Your task to perform on an android device: open app "Microsoft Excel" Image 0: 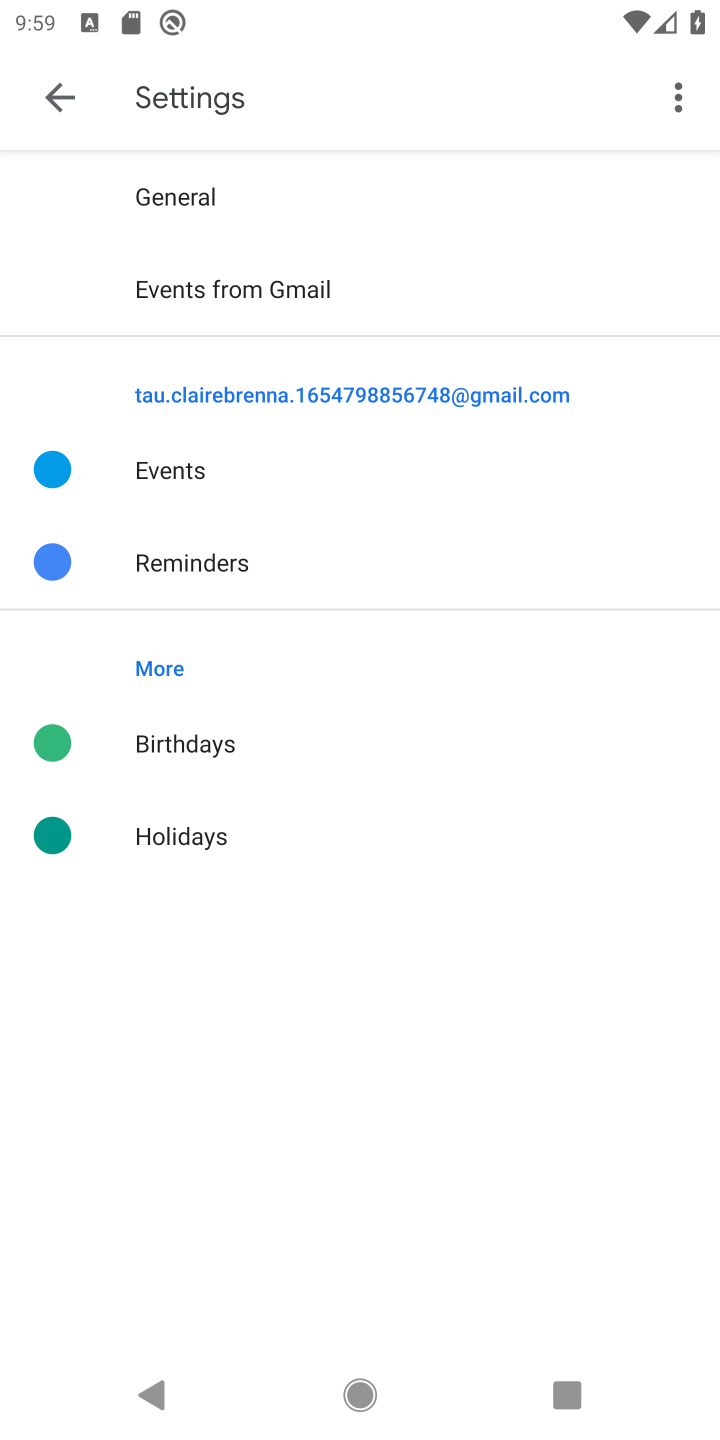
Step 0: press home button
Your task to perform on an android device: open app "Microsoft Excel" Image 1: 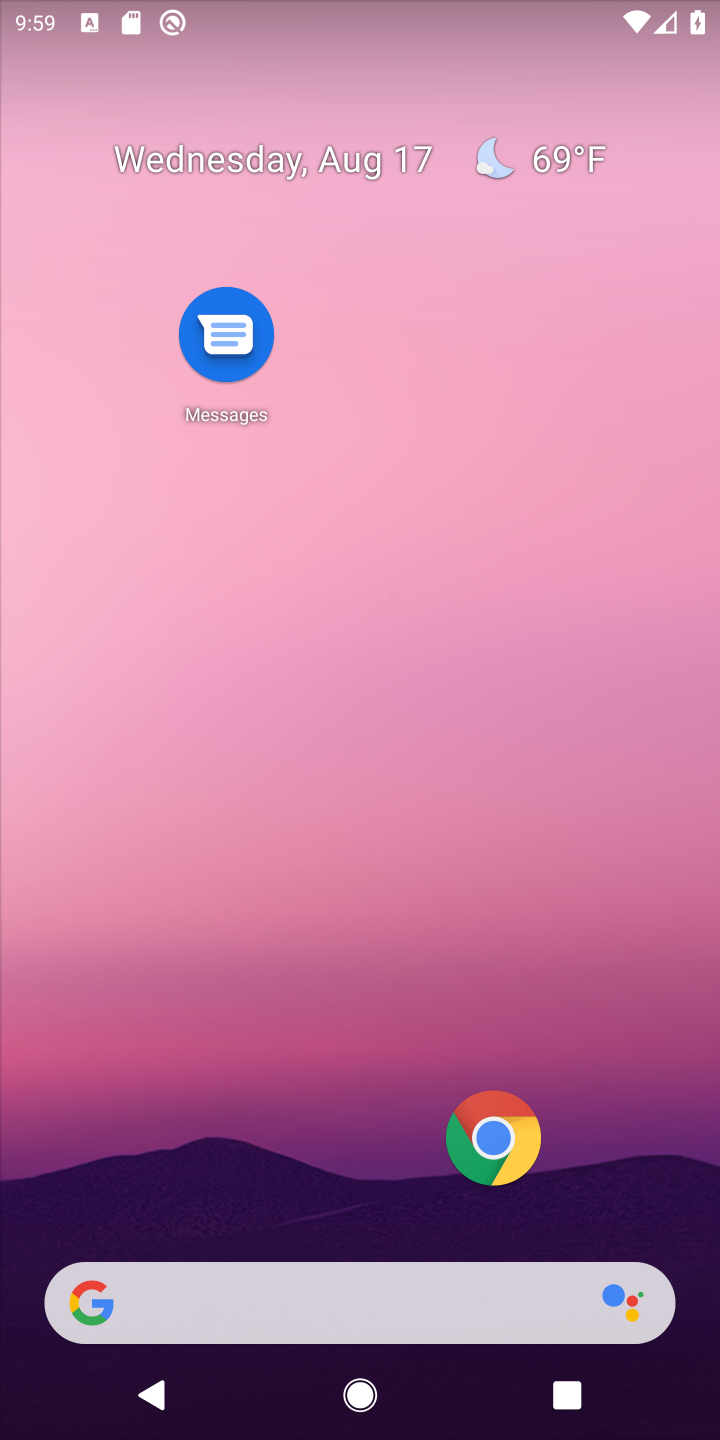
Step 1: drag from (132, 1285) to (246, 603)
Your task to perform on an android device: open app "Microsoft Excel" Image 2: 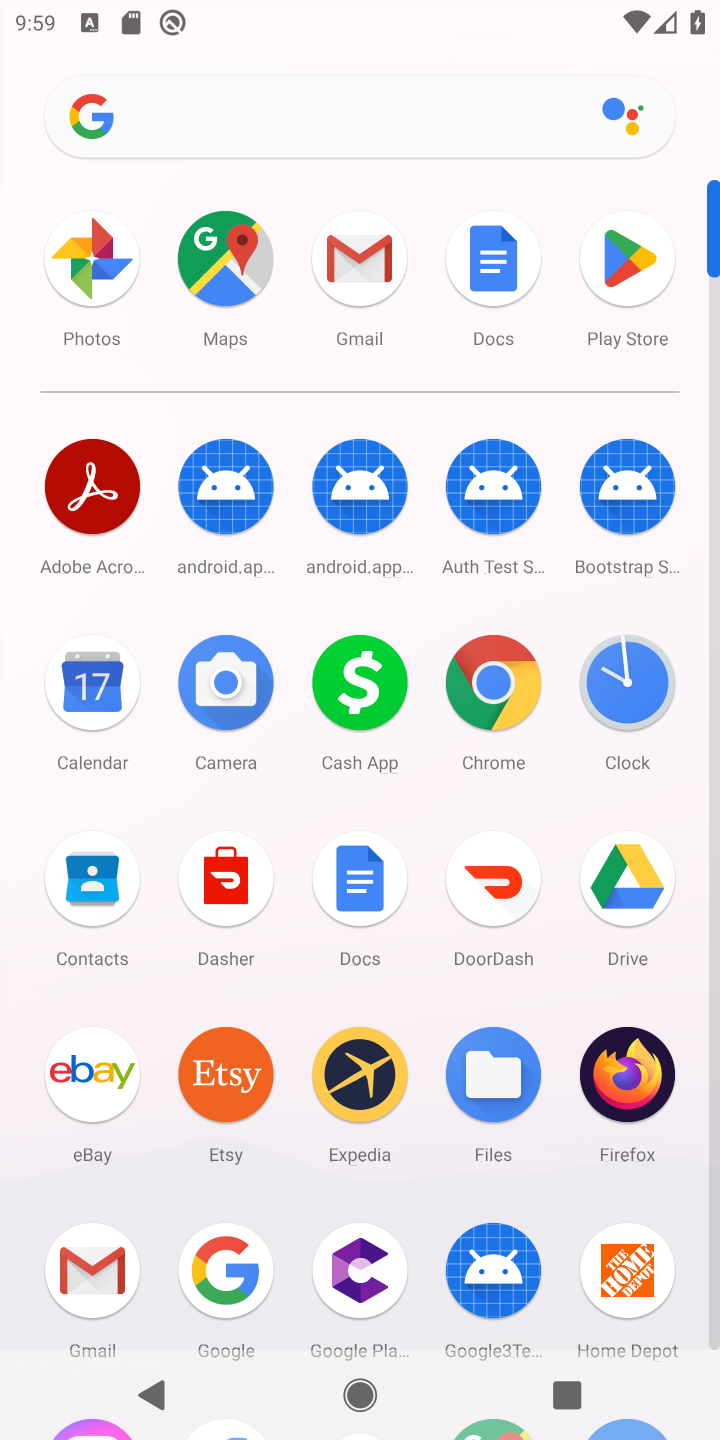
Step 2: click (615, 253)
Your task to perform on an android device: open app "Microsoft Excel" Image 3: 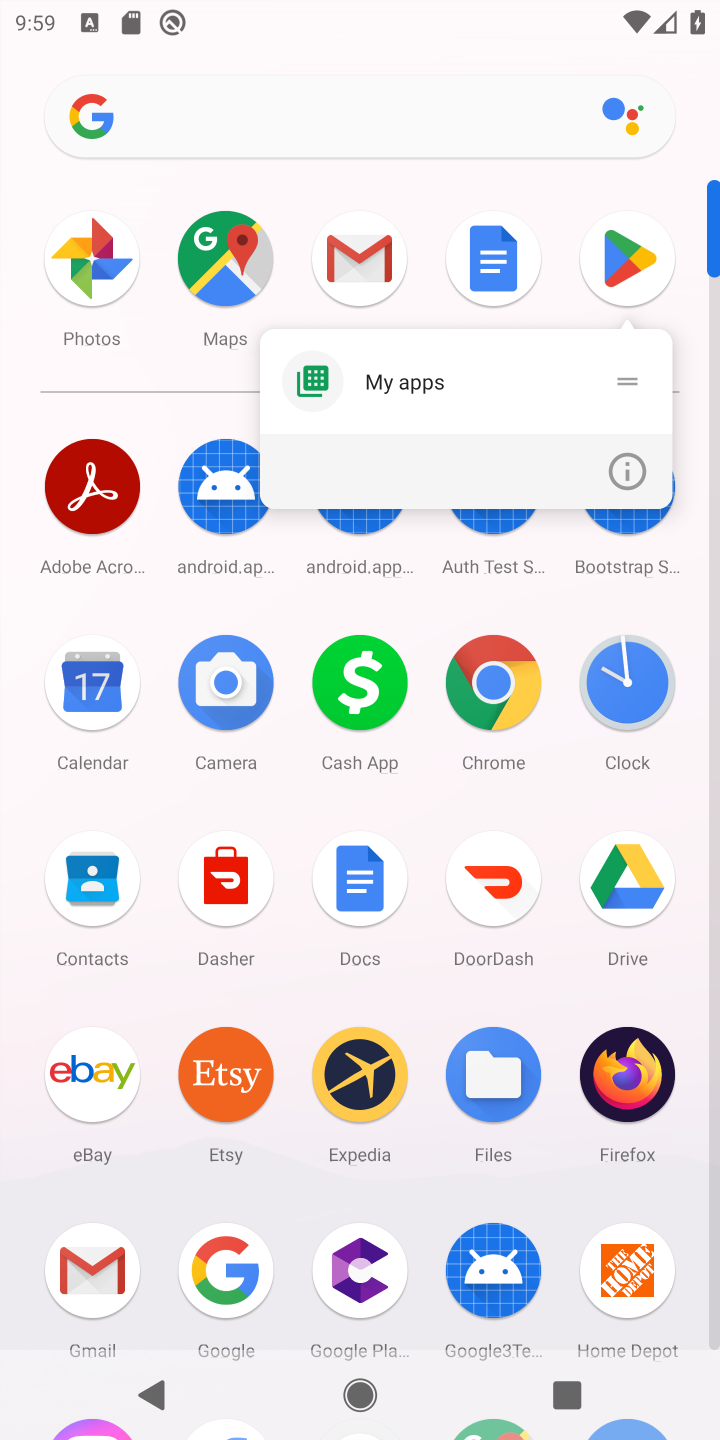
Step 3: click (622, 270)
Your task to perform on an android device: open app "Microsoft Excel" Image 4: 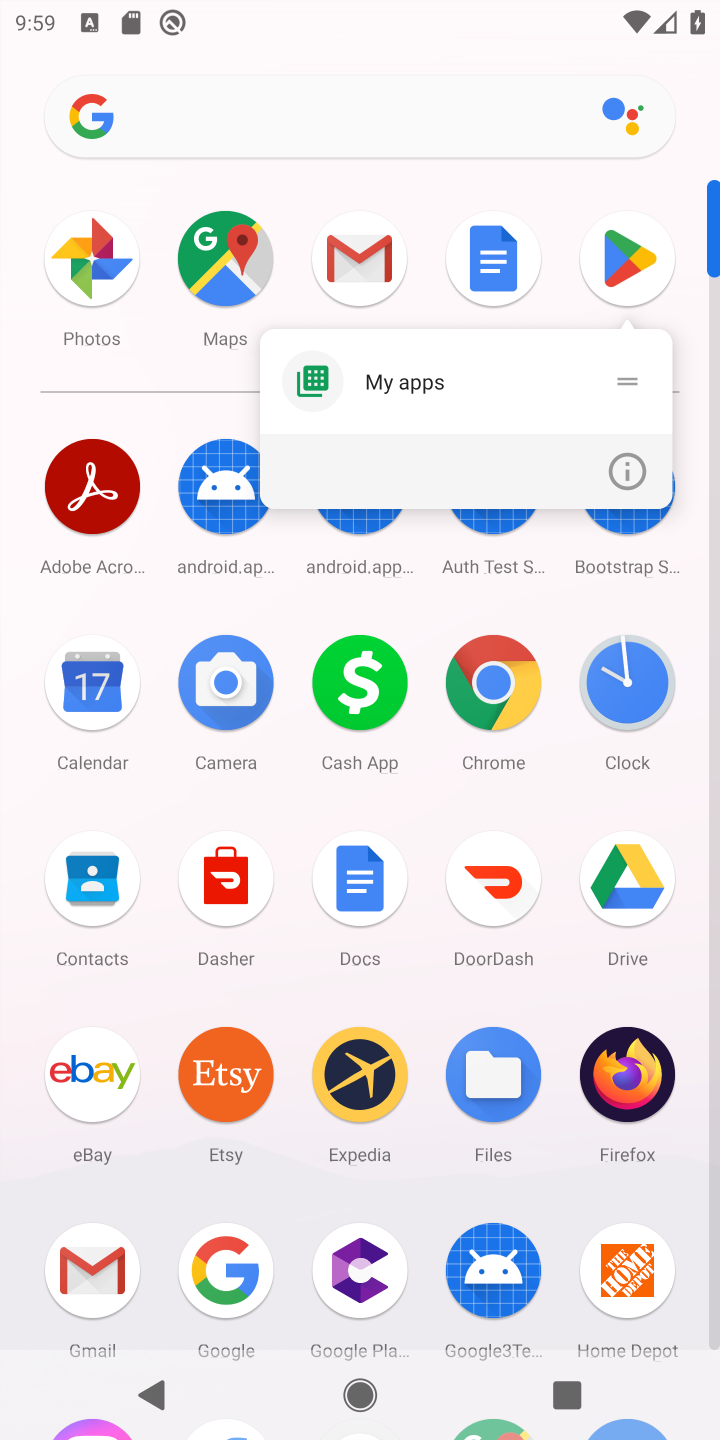
Step 4: click (622, 270)
Your task to perform on an android device: open app "Microsoft Excel" Image 5: 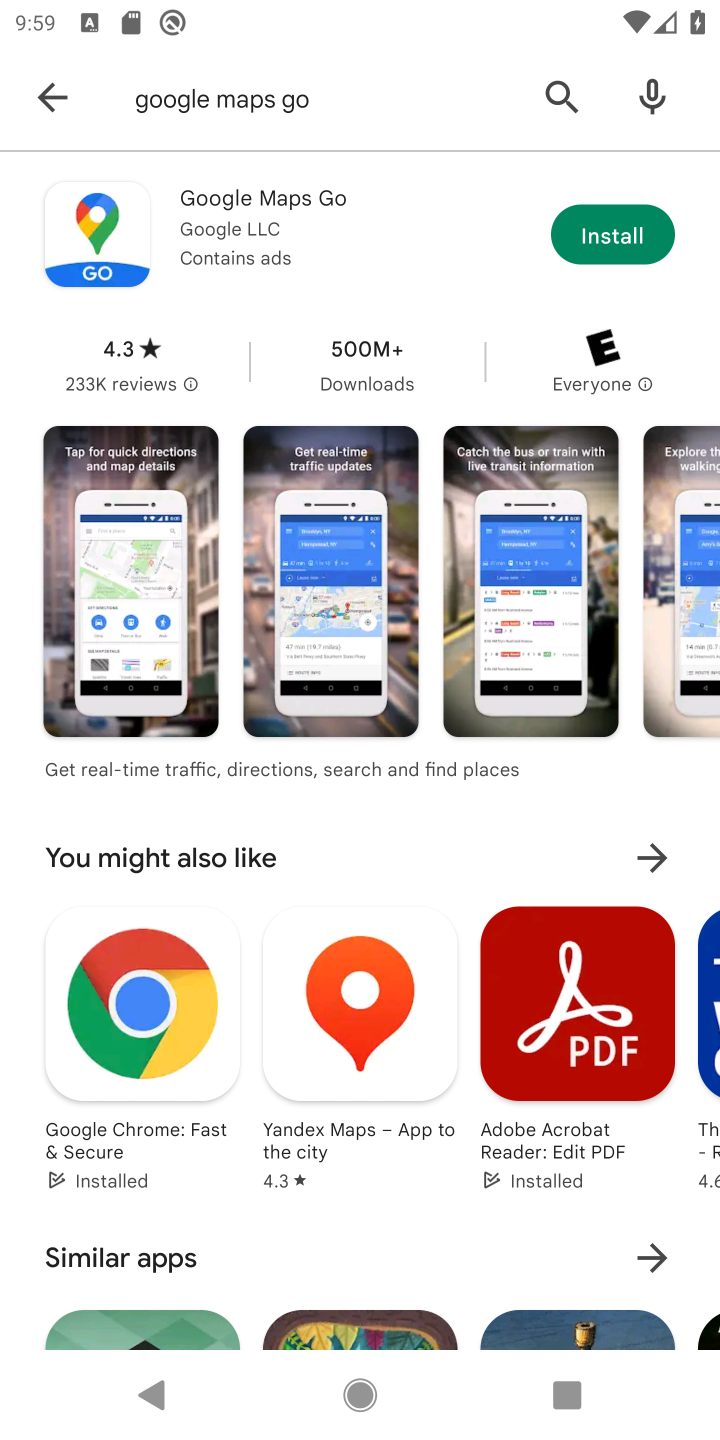
Step 5: click (65, 96)
Your task to perform on an android device: open app "Microsoft Excel" Image 6: 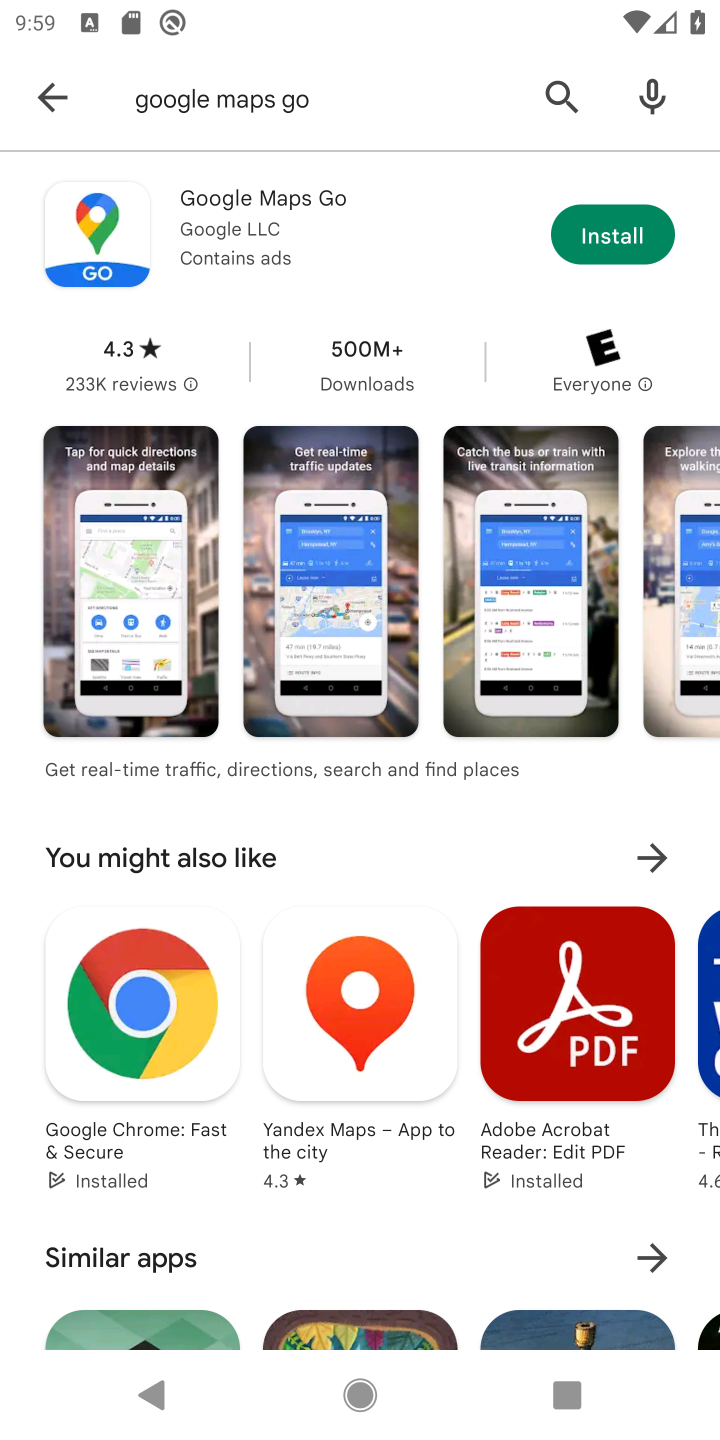
Step 6: click (37, 83)
Your task to perform on an android device: open app "Microsoft Excel" Image 7: 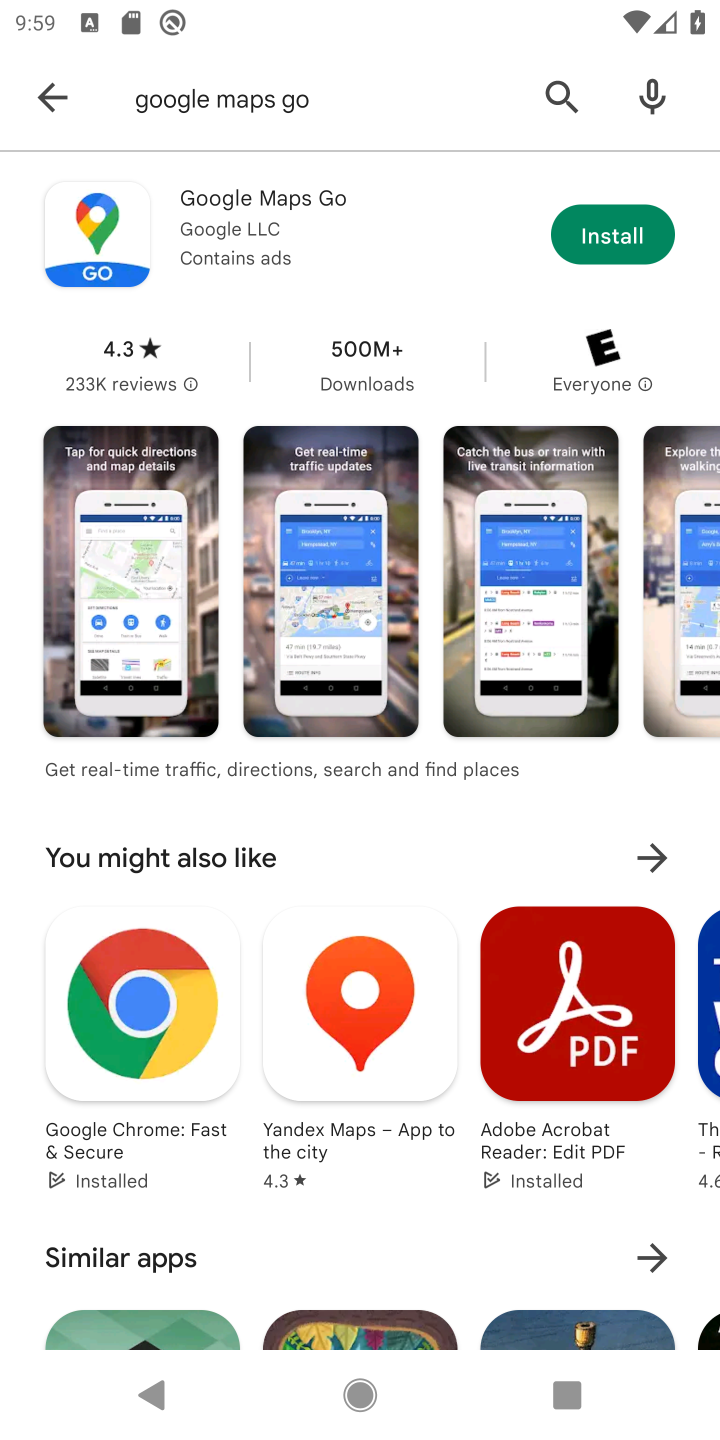
Step 7: click (564, 107)
Your task to perform on an android device: open app "Microsoft Excel" Image 8: 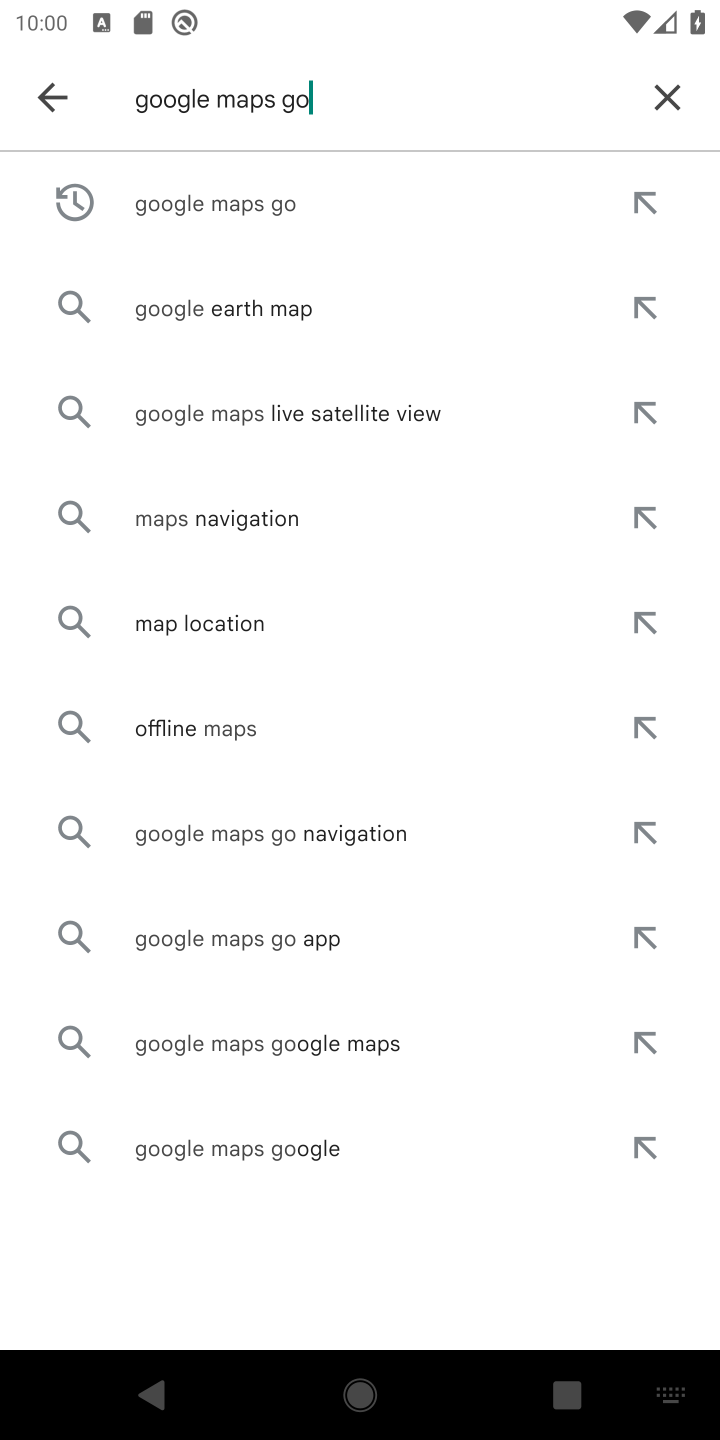
Step 8: click (664, 72)
Your task to perform on an android device: open app "Microsoft Excel" Image 9: 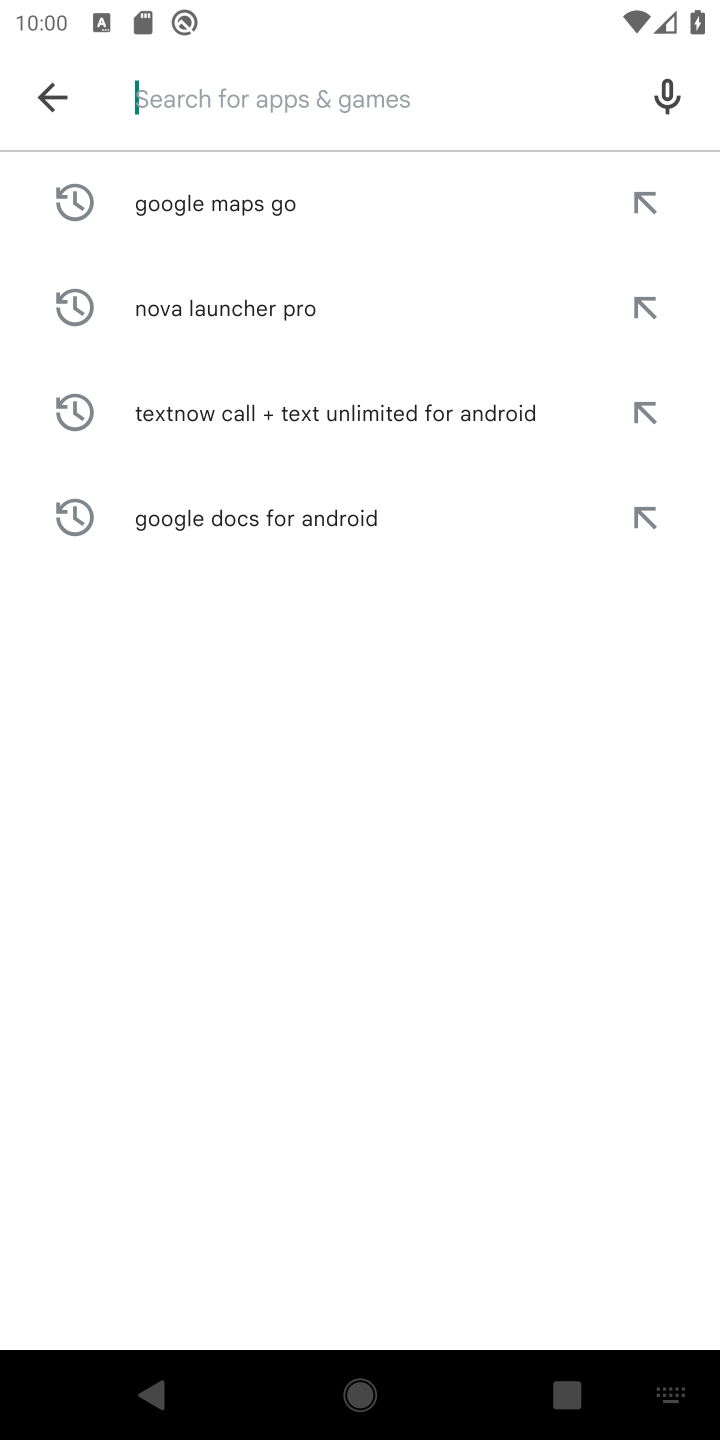
Step 9: click (333, 95)
Your task to perform on an android device: open app "Microsoft Excel" Image 10: 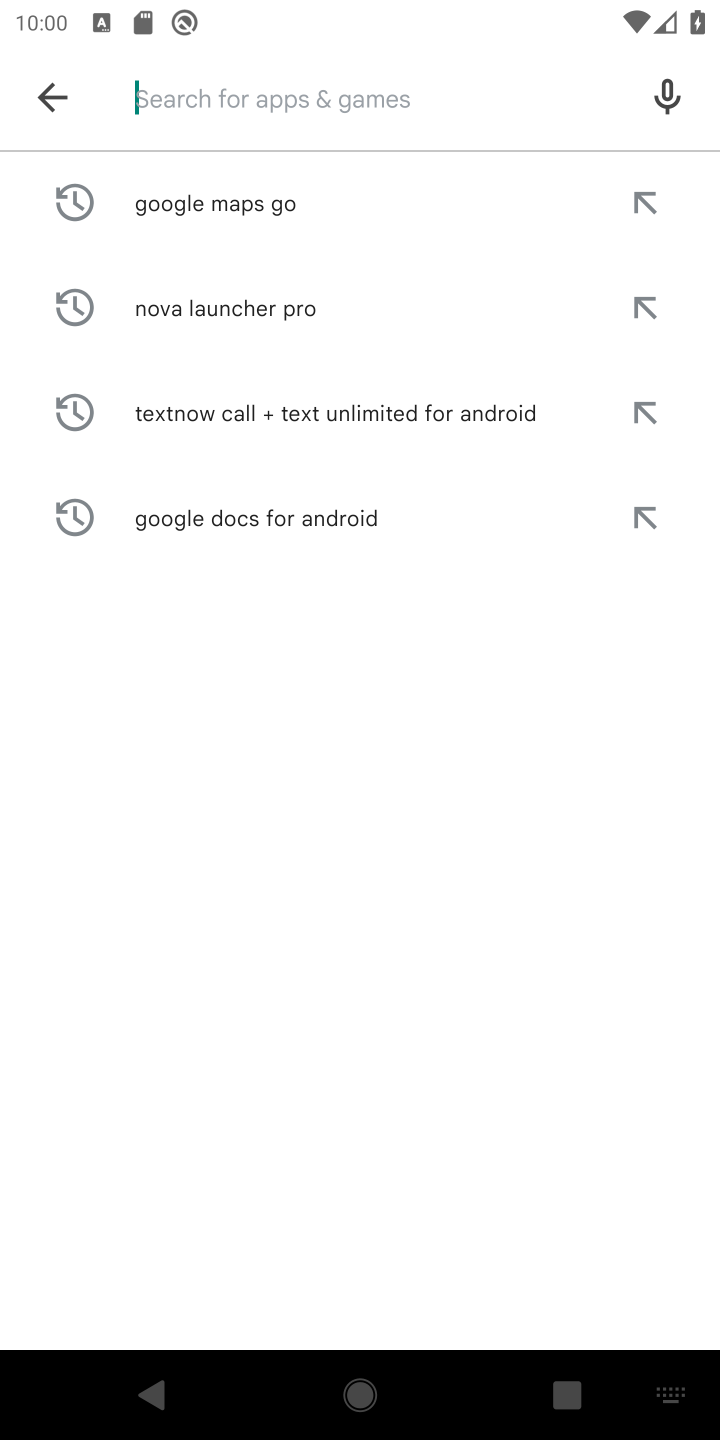
Step 10: type "Microsoft Excel" "
Your task to perform on an android device: open app "Microsoft Excel" Image 11: 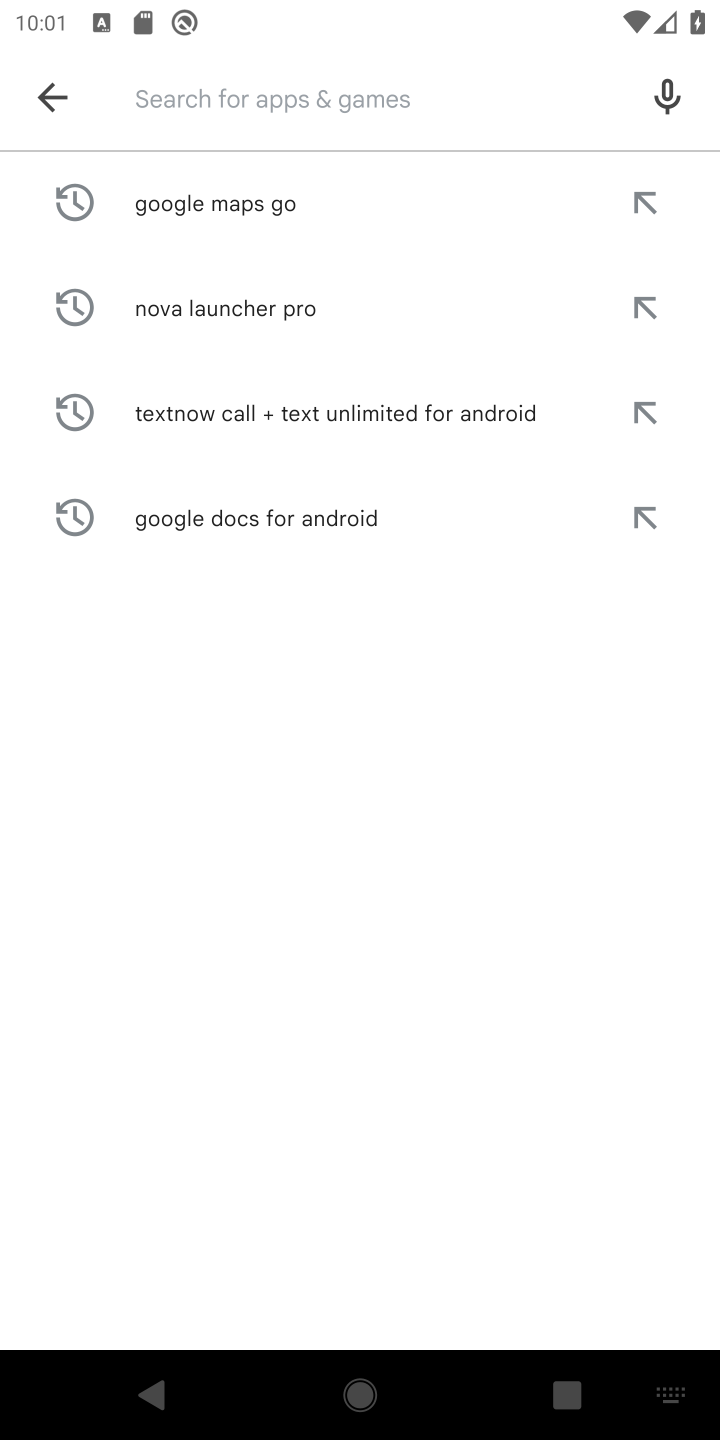
Step 11: click (264, 89)
Your task to perform on an android device: open app "Microsoft Excel" Image 12: 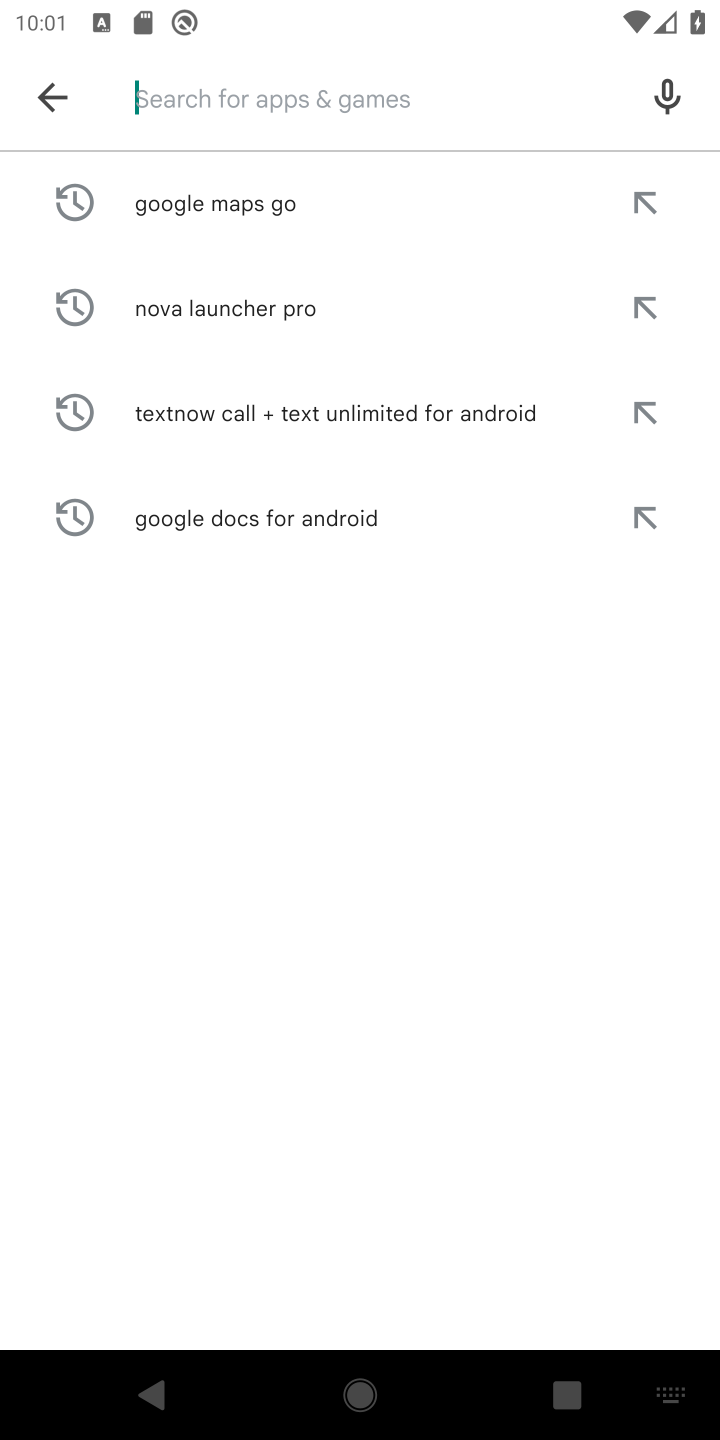
Step 12: type "microsoft excel "
Your task to perform on an android device: open app "Microsoft Excel" Image 13: 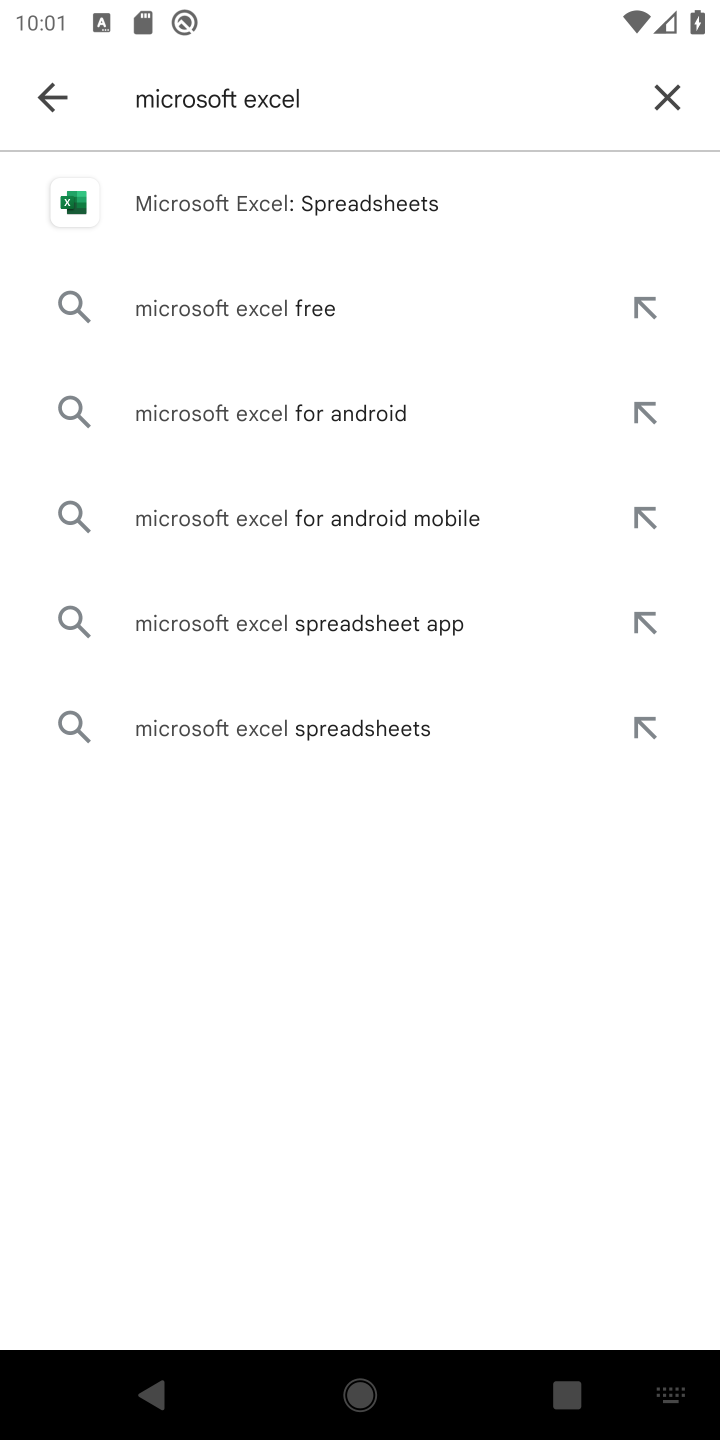
Step 13: click (385, 206)
Your task to perform on an android device: open app "Microsoft Excel" Image 14: 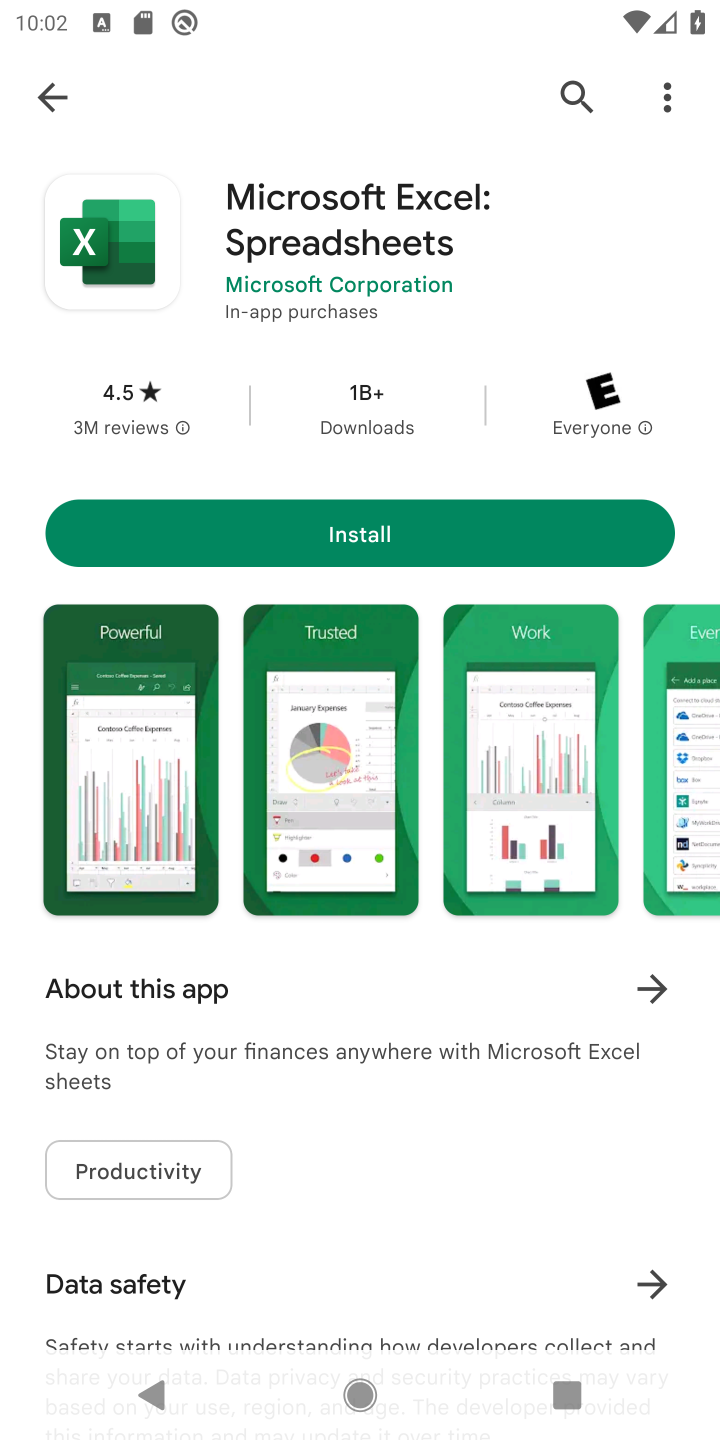
Step 14: click (363, 527)
Your task to perform on an android device: open app "Microsoft Excel" Image 15: 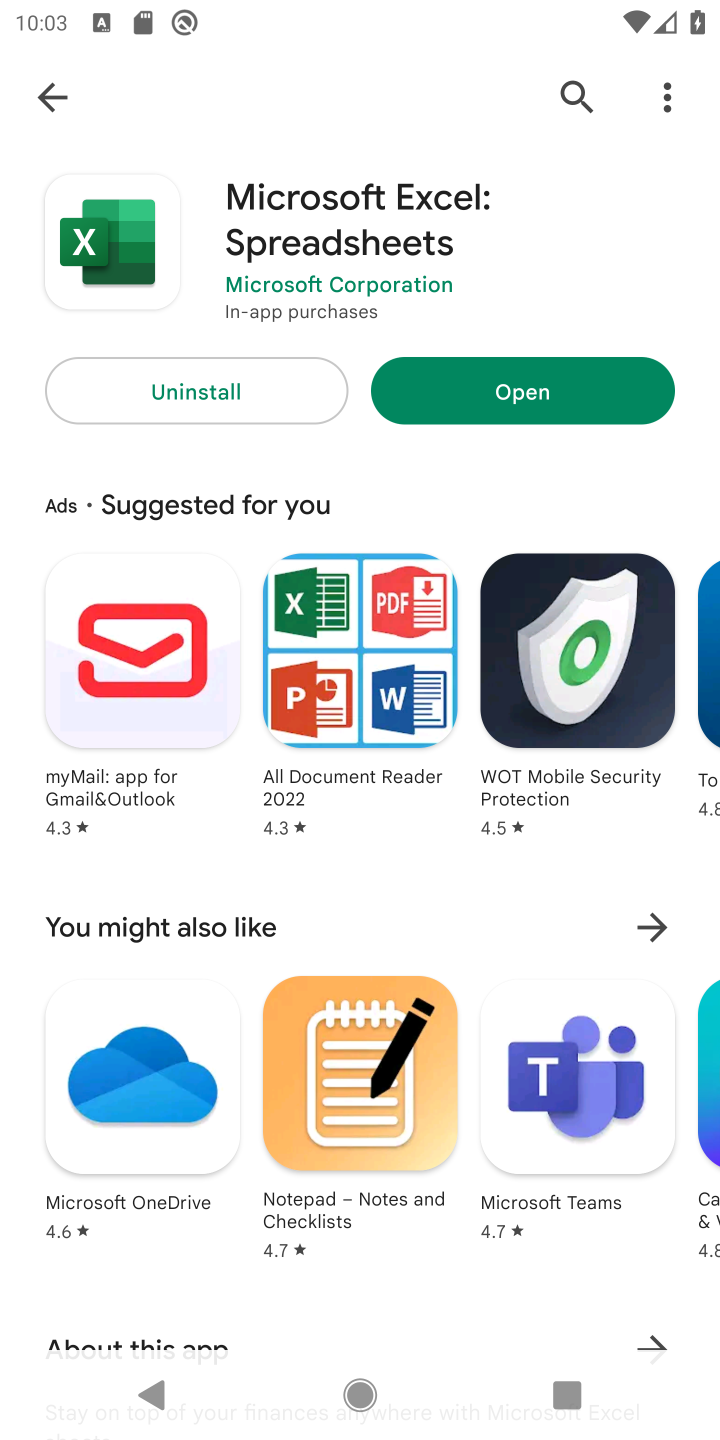
Step 15: click (515, 394)
Your task to perform on an android device: open app "Microsoft Excel" Image 16: 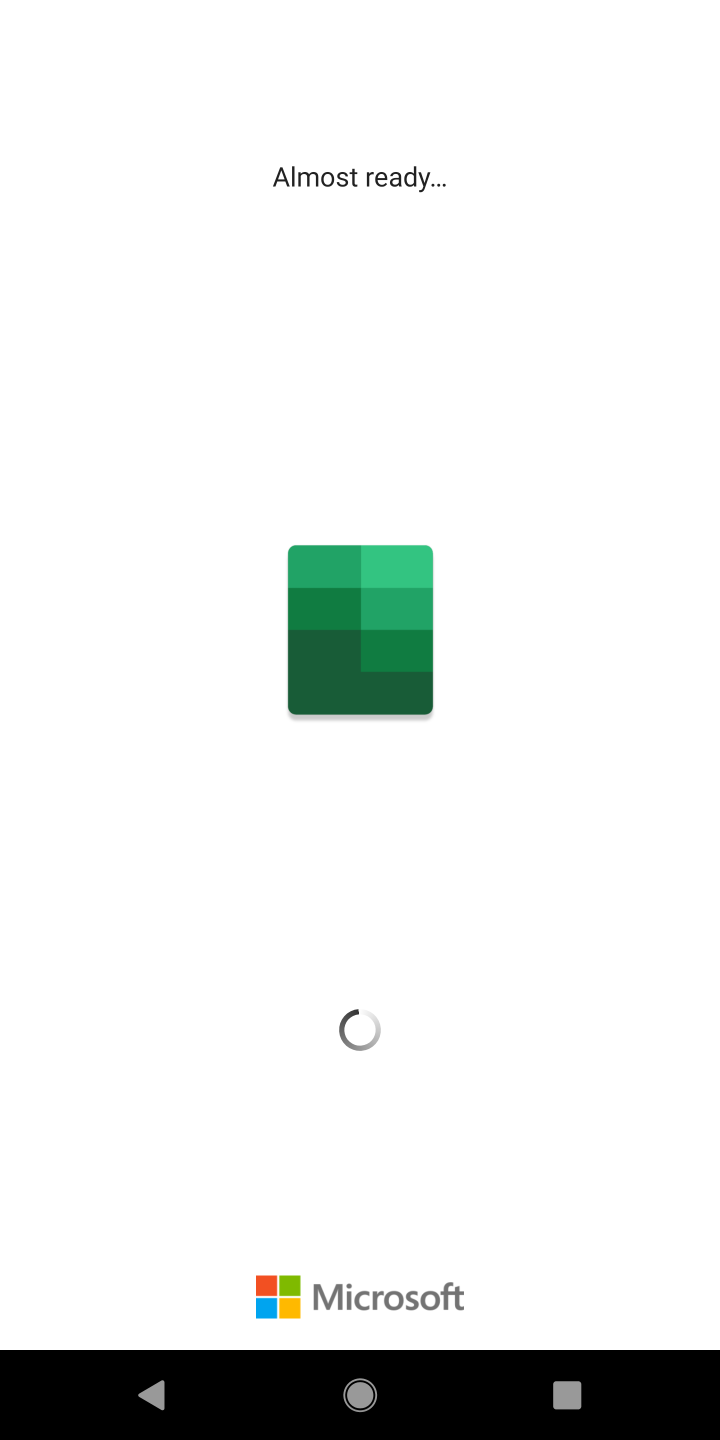
Step 16: task complete